Your task to perform on an android device: make emails show in primary in the gmail app Image 0: 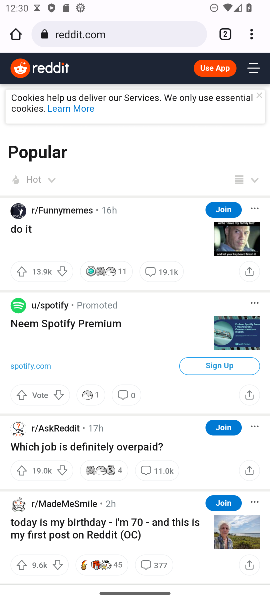
Step 0: press home button
Your task to perform on an android device: make emails show in primary in the gmail app Image 1: 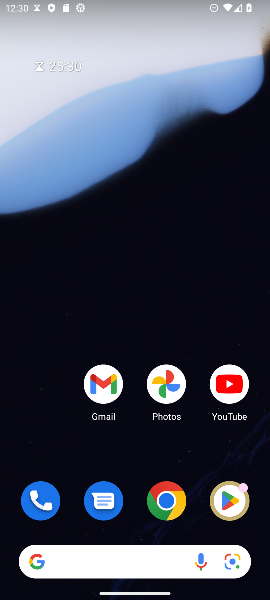
Step 1: click (100, 385)
Your task to perform on an android device: make emails show in primary in the gmail app Image 2: 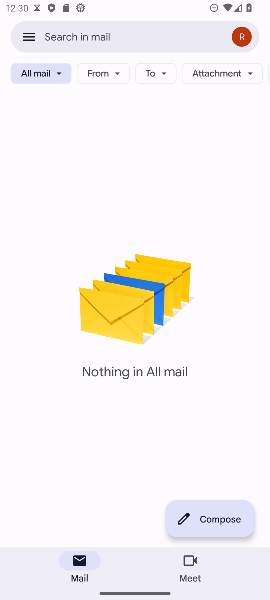
Step 2: click (26, 35)
Your task to perform on an android device: make emails show in primary in the gmail app Image 3: 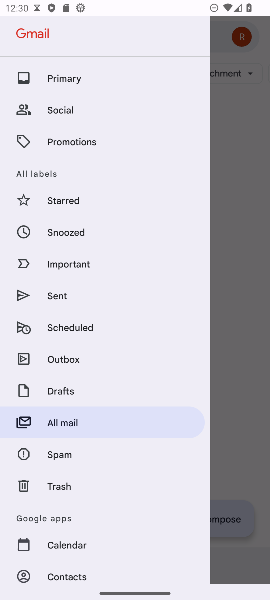
Step 3: drag from (75, 556) to (12, 290)
Your task to perform on an android device: make emails show in primary in the gmail app Image 4: 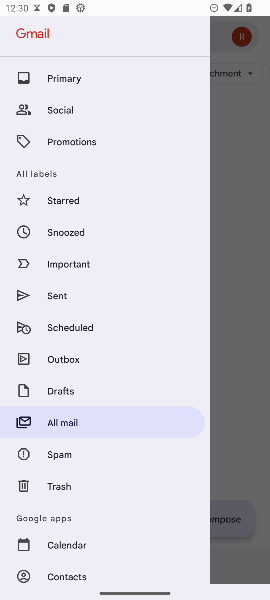
Step 4: drag from (68, 556) to (35, 40)
Your task to perform on an android device: make emails show in primary in the gmail app Image 5: 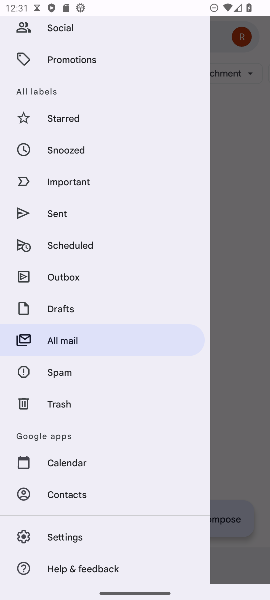
Step 5: click (71, 537)
Your task to perform on an android device: make emails show in primary in the gmail app Image 6: 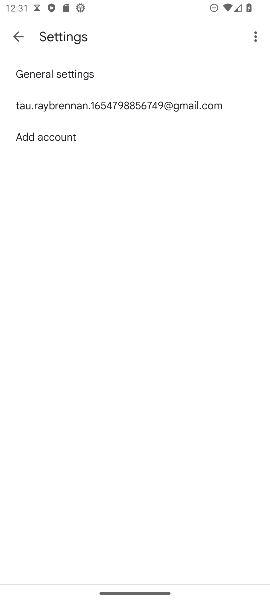
Step 6: click (71, 537)
Your task to perform on an android device: make emails show in primary in the gmail app Image 7: 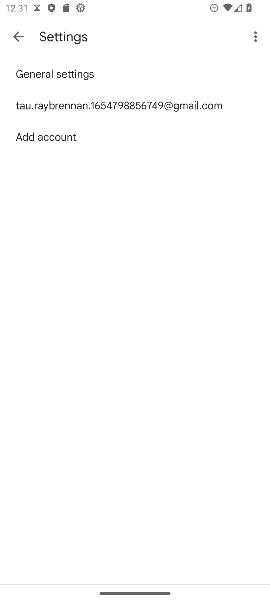
Step 7: click (151, 98)
Your task to perform on an android device: make emails show in primary in the gmail app Image 8: 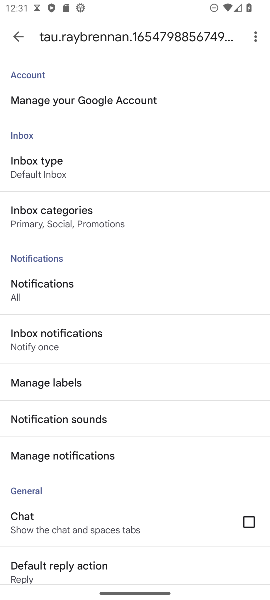
Step 8: click (53, 209)
Your task to perform on an android device: make emails show in primary in the gmail app Image 9: 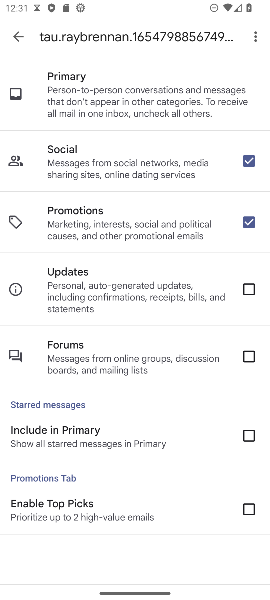
Step 9: click (249, 222)
Your task to perform on an android device: make emails show in primary in the gmail app Image 10: 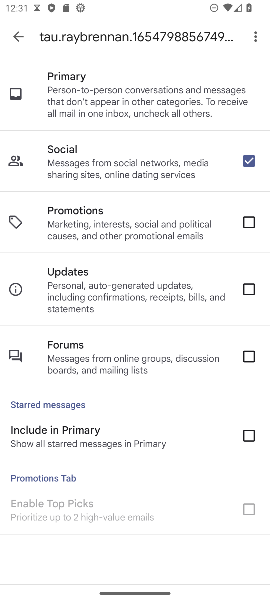
Step 10: click (250, 166)
Your task to perform on an android device: make emails show in primary in the gmail app Image 11: 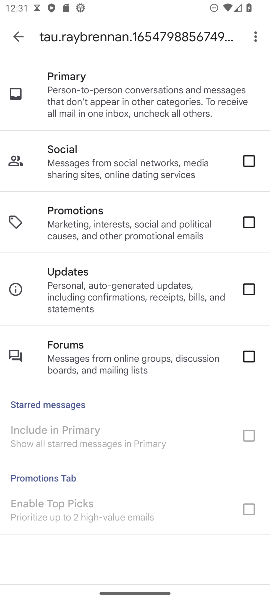
Step 11: task complete